Your task to perform on an android device: Show me the alarms in the clock app Image 0: 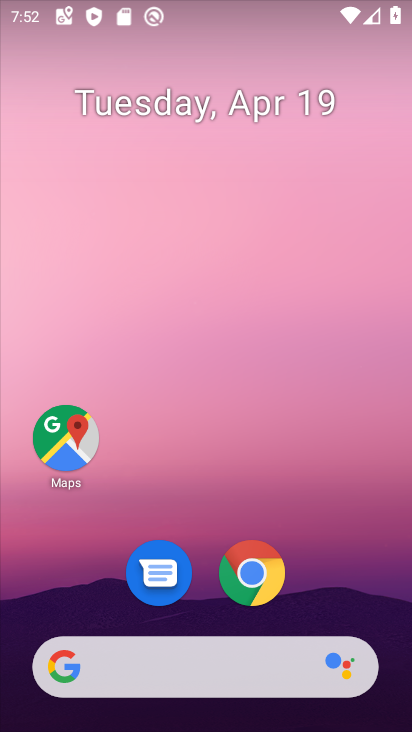
Step 0: drag from (231, 682) to (260, 184)
Your task to perform on an android device: Show me the alarms in the clock app Image 1: 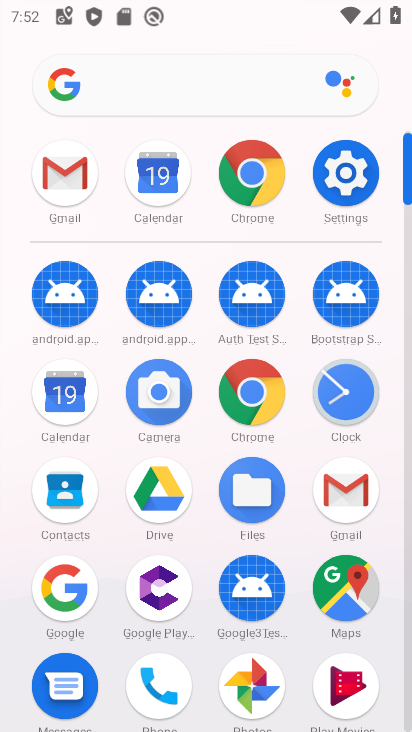
Step 1: click (330, 408)
Your task to perform on an android device: Show me the alarms in the clock app Image 2: 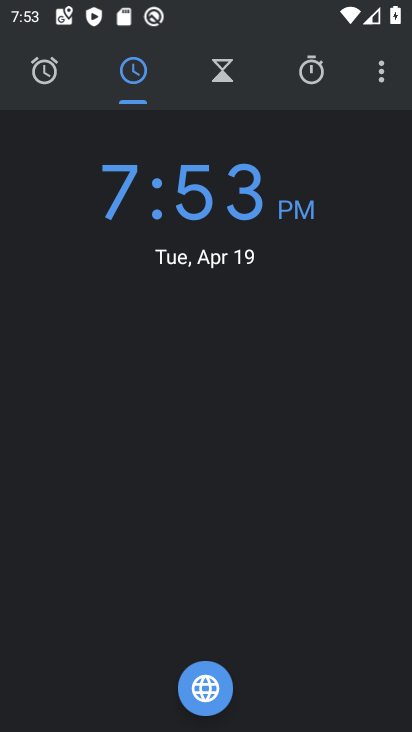
Step 2: click (52, 76)
Your task to perform on an android device: Show me the alarms in the clock app Image 3: 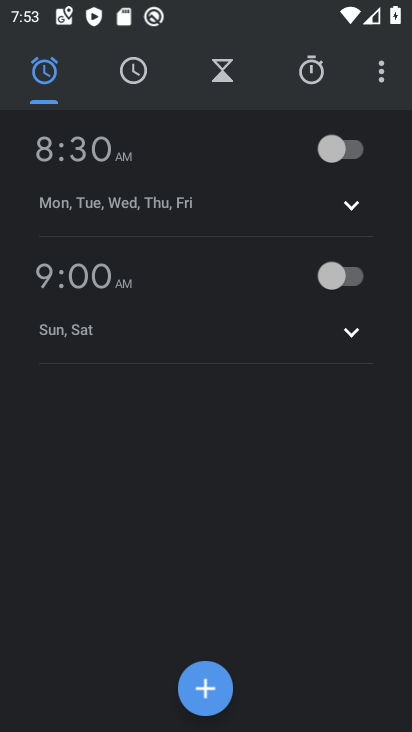
Step 3: click (55, 154)
Your task to perform on an android device: Show me the alarms in the clock app Image 4: 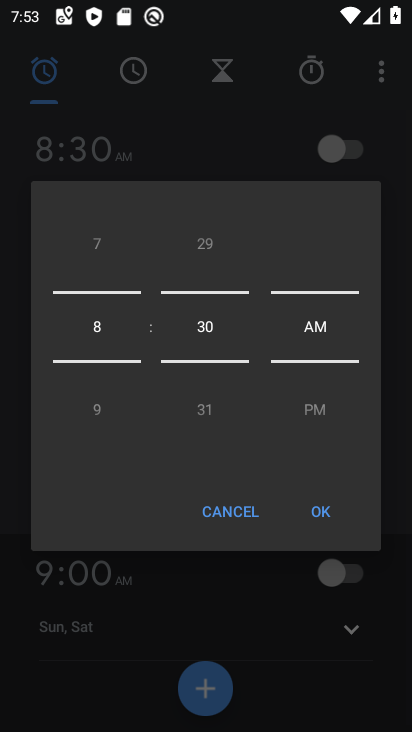
Step 4: task complete